Your task to perform on an android device: Open battery settings Image 0: 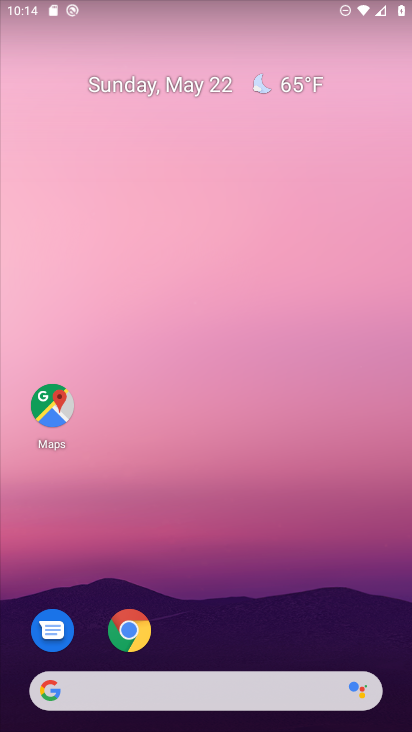
Step 0: press home button
Your task to perform on an android device: Open battery settings Image 1: 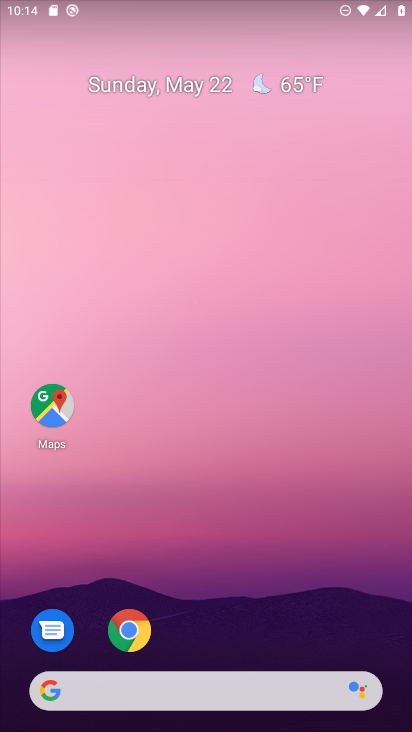
Step 1: drag from (253, 328) to (341, 125)
Your task to perform on an android device: Open battery settings Image 2: 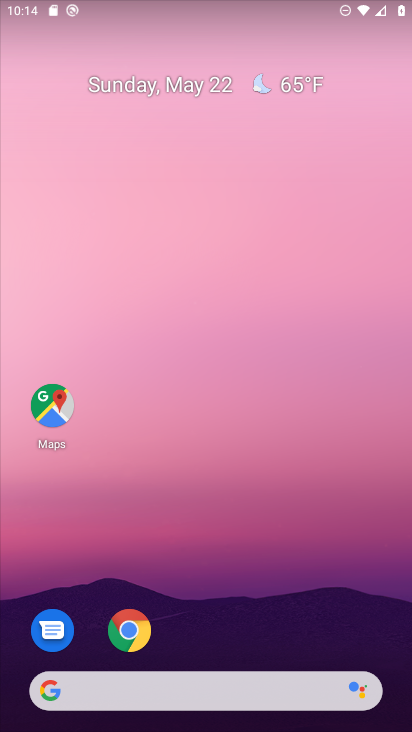
Step 2: drag from (202, 690) to (371, 12)
Your task to perform on an android device: Open battery settings Image 3: 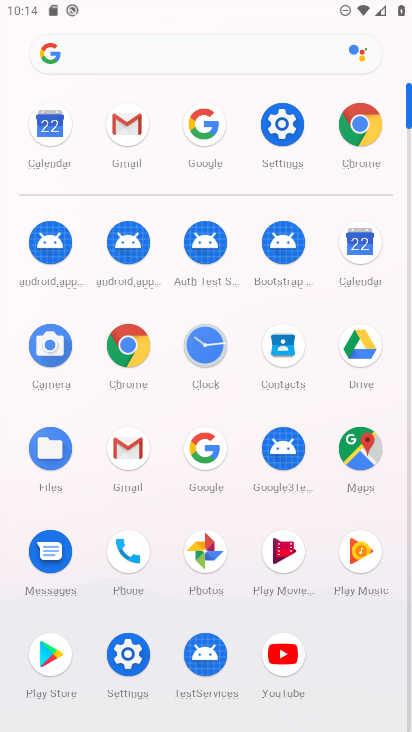
Step 3: click (291, 133)
Your task to perform on an android device: Open battery settings Image 4: 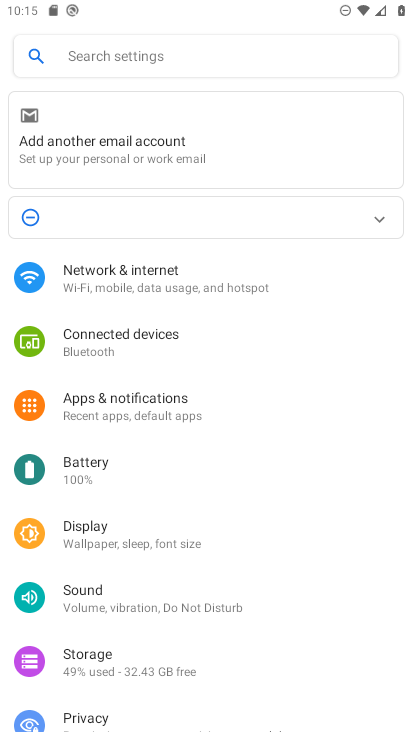
Step 4: click (93, 477)
Your task to perform on an android device: Open battery settings Image 5: 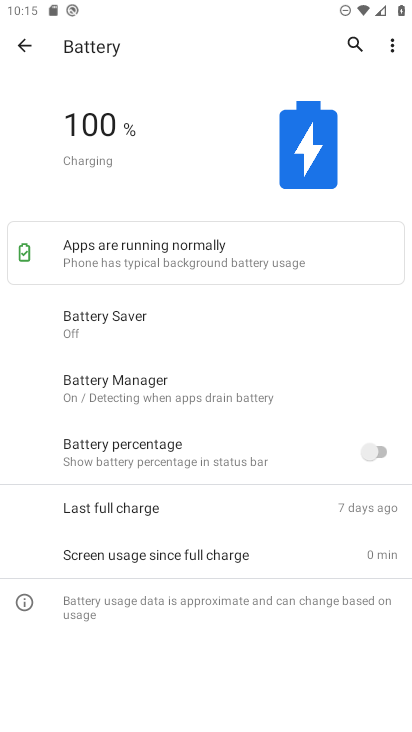
Step 5: task complete